Your task to perform on an android device: visit the assistant section in the google photos Image 0: 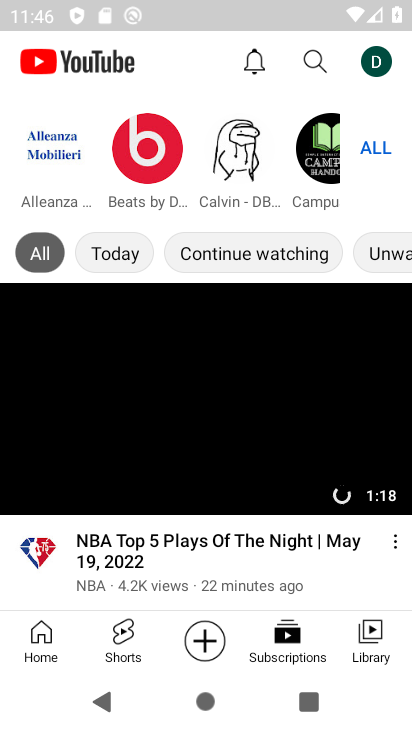
Step 0: press home button
Your task to perform on an android device: visit the assistant section in the google photos Image 1: 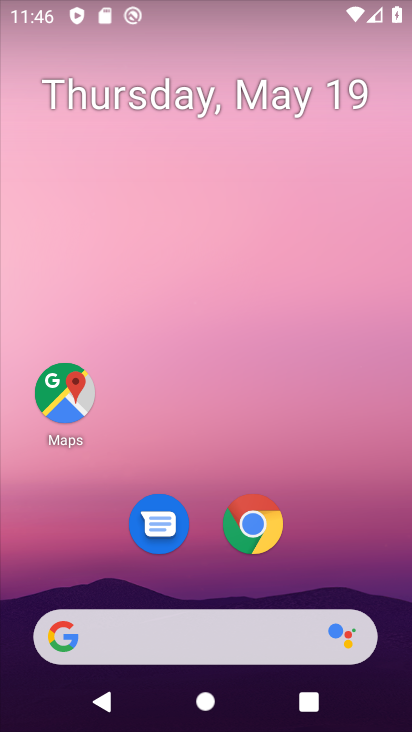
Step 1: drag from (223, 430) to (212, 44)
Your task to perform on an android device: visit the assistant section in the google photos Image 2: 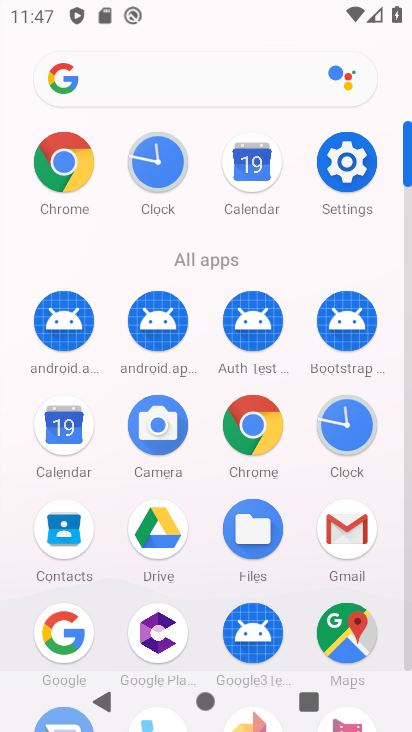
Step 2: drag from (303, 471) to (293, 118)
Your task to perform on an android device: visit the assistant section in the google photos Image 3: 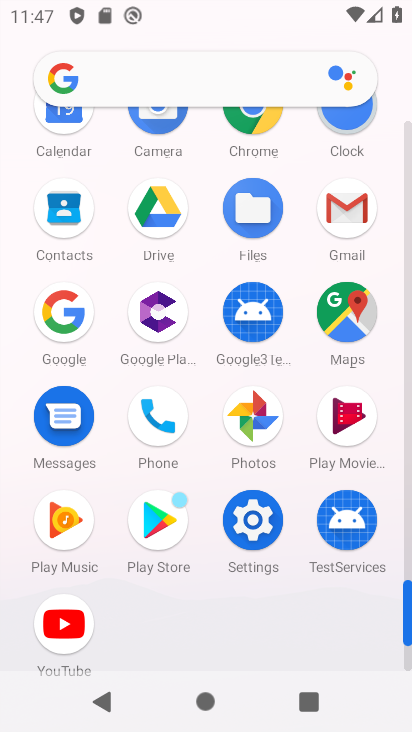
Step 3: click (263, 398)
Your task to perform on an android device: visit the assistant section in the google photos Image 4: 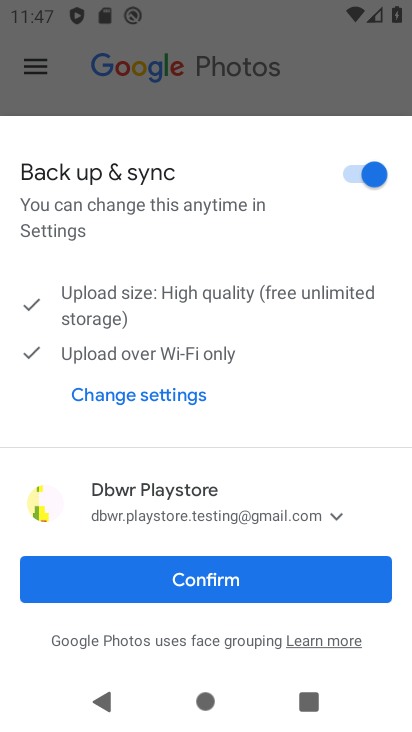
Step 4: click (282, 577)
Your task to perform on an android device: visit the assistant section in the google photos Image 5: 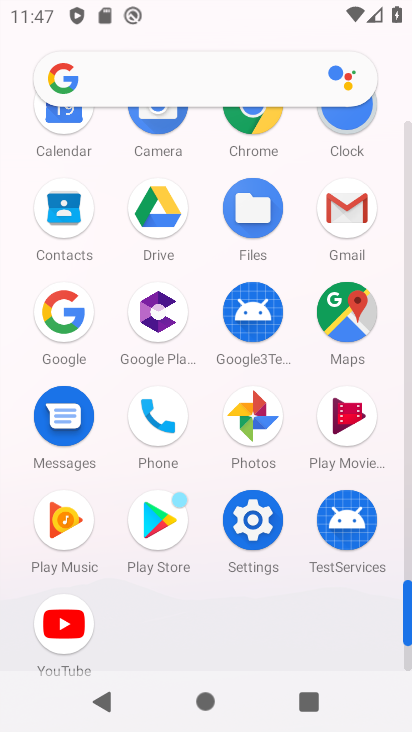
Step 5: click (258, 414)
Your task to perform on an android device: visit the assistant section in the google photos Image 6: 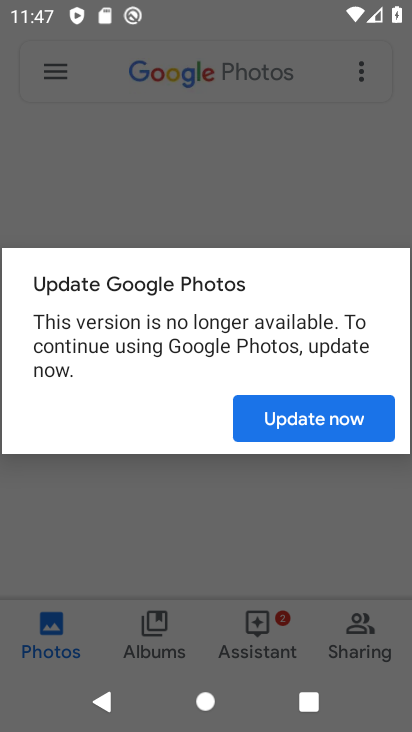
Step 6: click (292, 420)
Your task to perform on an android device: visit the assistant section in the google photos Image 7: 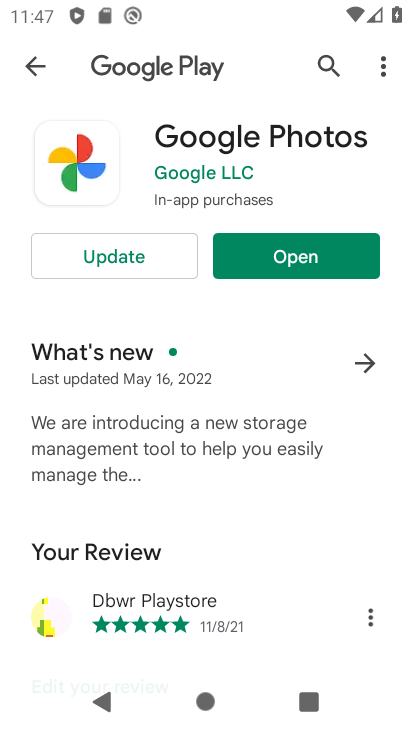
Step 7: click (302, 255)
Your task to perform on an android device: visit the assistant section in the google photos Image 8: 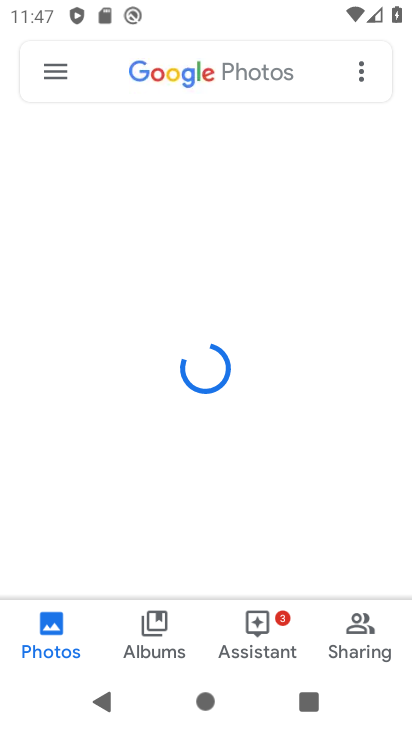
Step 8: click (245, 624)
Your task to perform on an android device: visit the assistant section in the google photos Image 9: 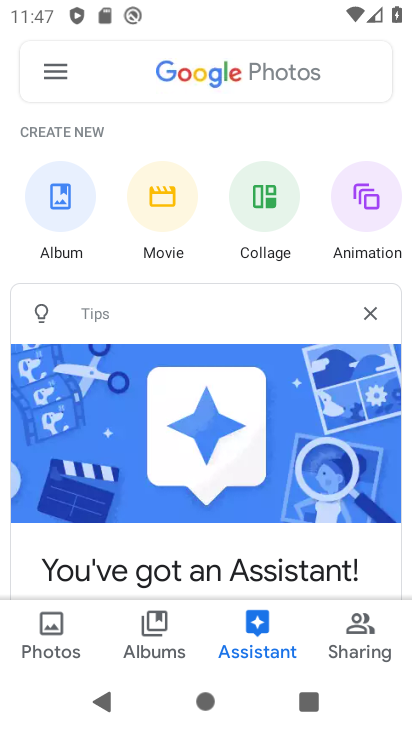
Step 9: task complete